Your task to perform on an android device: toggle javascript in the chrome app Image 0: 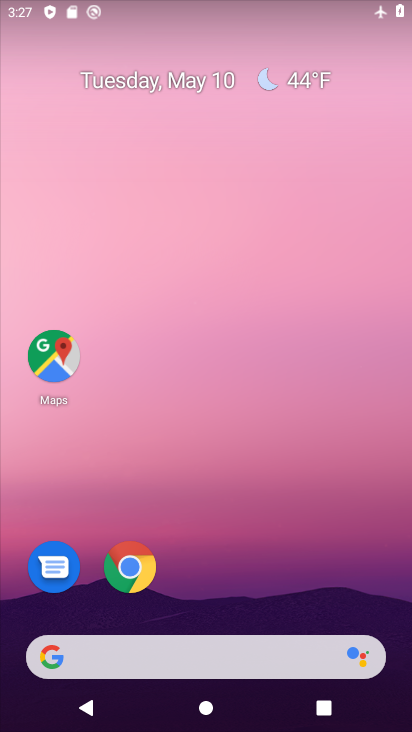
Step 0: click (129, 566)
Your task to perform on an android device: toggle javascript in the chrome app Image 1: 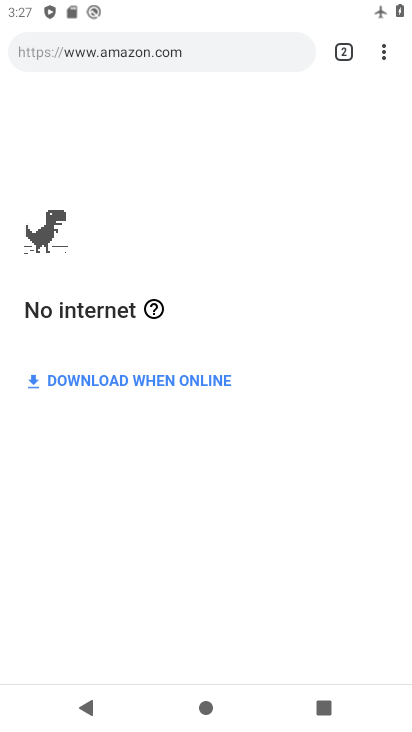
Step 1: click (383, 53)
Your task to perform on an android device: toggle javascript in the chrome app Image 2: 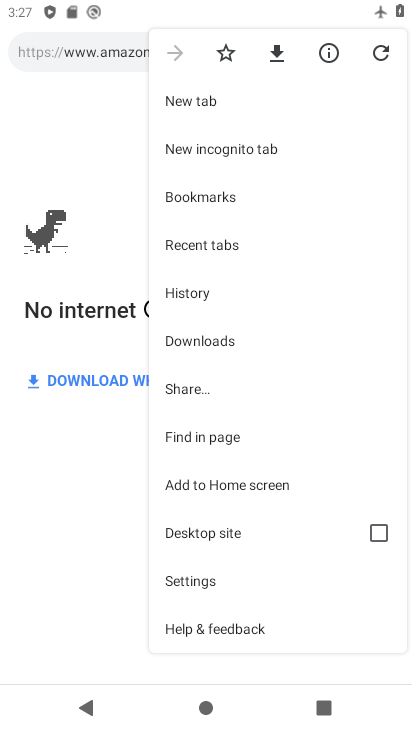
Step 2: click (200, 575)
Your task to perform on an android device: toggle javascript in the chrome app Image 3: 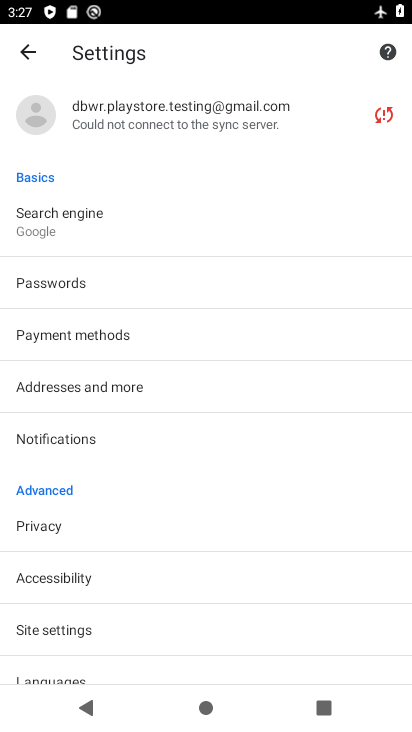
Step 3: drag from (113, 487) to (196, 356)
Your task to perform on an android device: toggle javascript in the chrome app Image 4: 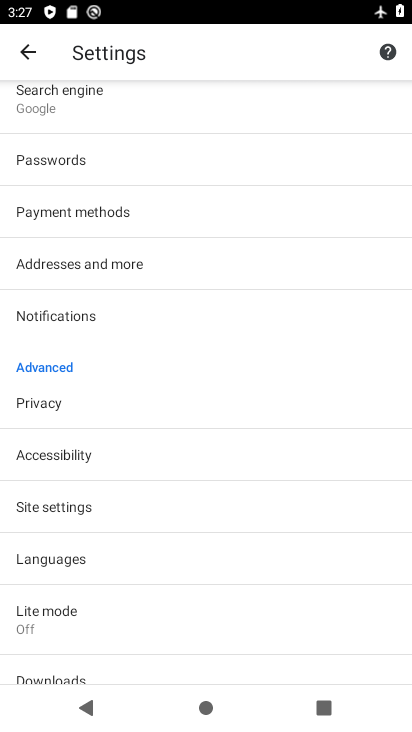
Step 4: drag from (105, 535) to (163, 421)
Your task to perform on an android device: toggle javascript in the chrome app Image 5: 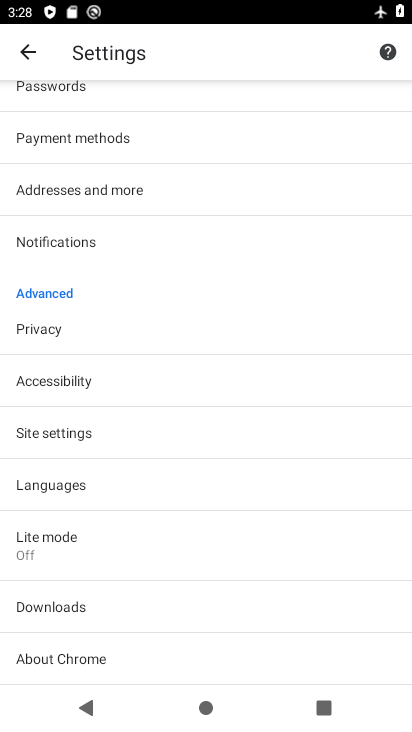
Step 5: drag from (95, 575) to (199, 415)
Your task to perform on an android device: toggle javascript in the chrome app Image 6: 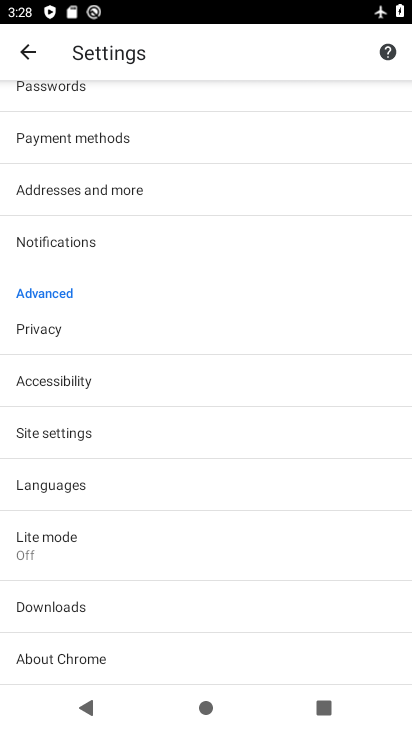
Step 6: click (54, 435)
Your task to perform on an android device: toggle javascript in the chrome app Image 7: 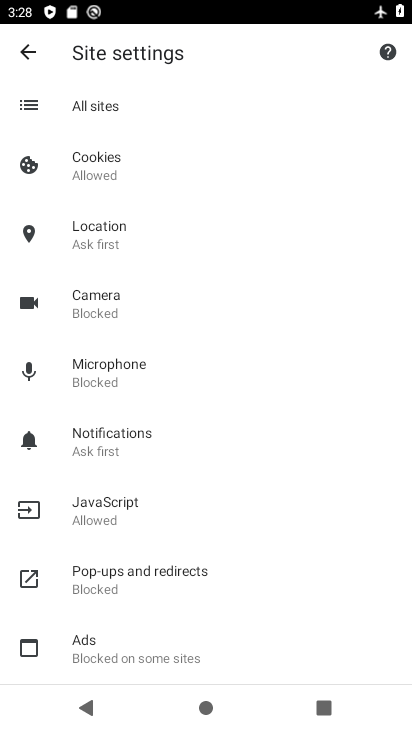
Step 7: click (114, 504)
Your task to perform on an android device: toggle javascript in the chrome app Image 8: 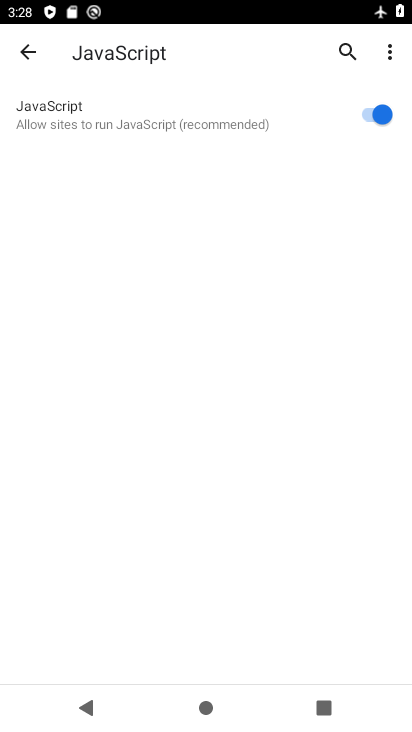
Step 8: click (382, 121)
Your task to perform on an android device: toggle javascript in the chrome app Image 9: 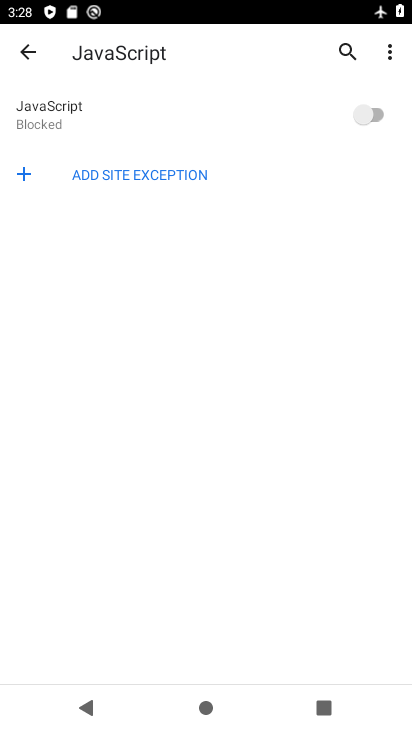
Step 9: task complete